Your task to perform on an android device: Open Google Chrome and click the shortcut for Amazon.com Image 0: 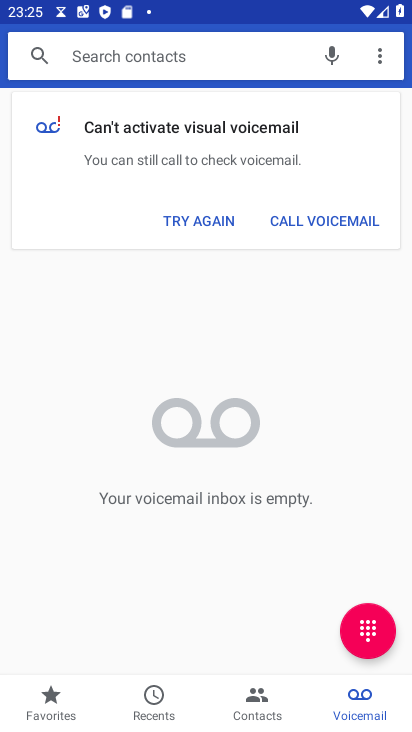
Step 0: press back button
Your task to perform on an android device: Open Google Chrome and click the shortcut for Amazon.com Image 1: 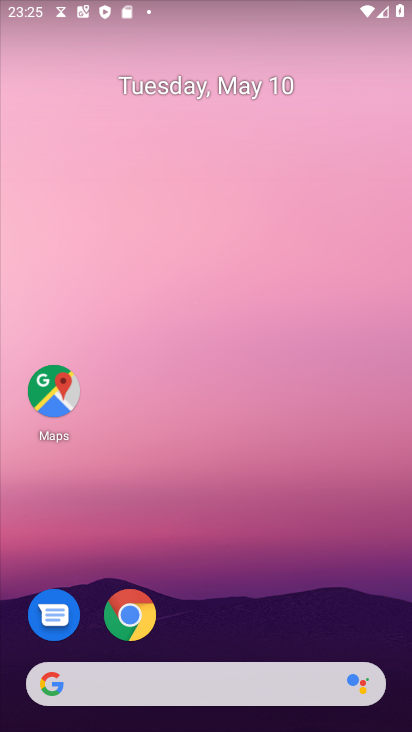
Step 1: click (133, 615)
Your task to perform on an android device: Open Google Chrome and click the shortcut for Amazon.com Image 2: 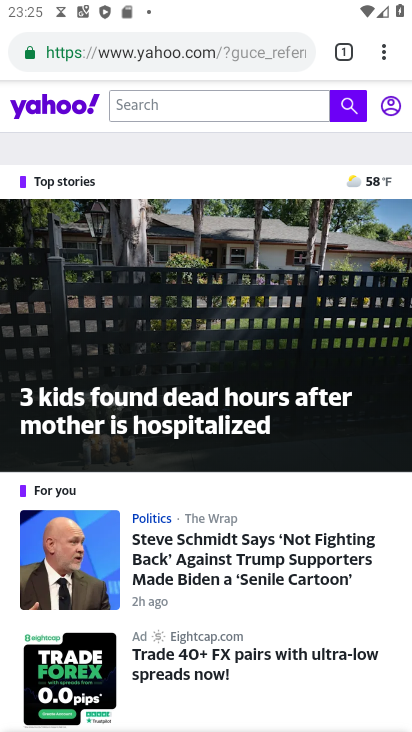
Step 2: click (265, 51)
Your task to perform on an android device: Open Google Chrome and click the shortcut for Amazon.com Image 3: 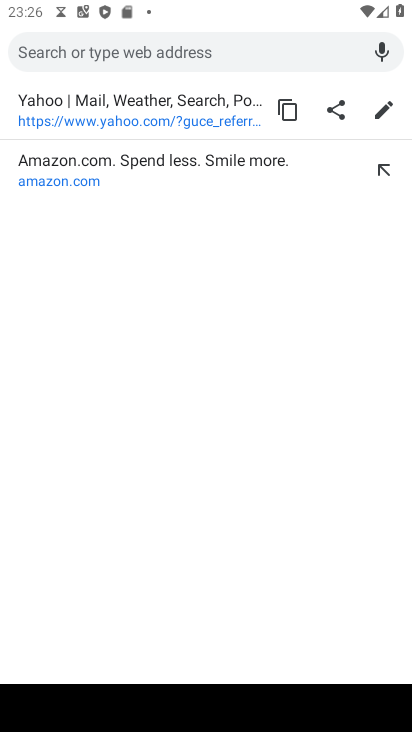
Step 3: type "Amazon.com"
Your task to perform on an android device: Open Google Chrome and click the shortcut for Amazon.com Image 4: 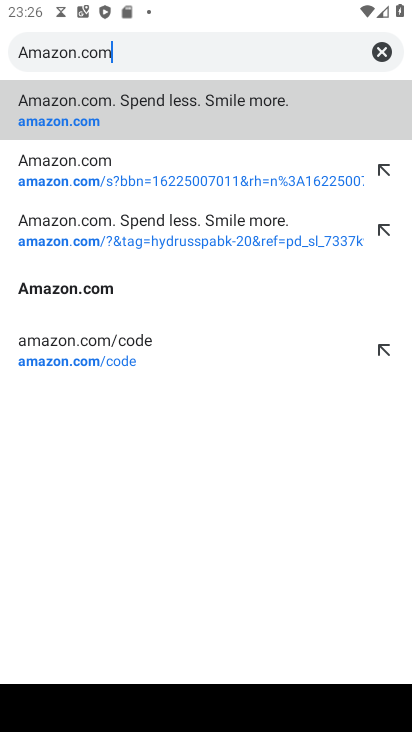
Step 4: click (186, 114)
Your task to perform on an android device: Open Google Chrome and click the shortcut for Amazon.com Image 5: 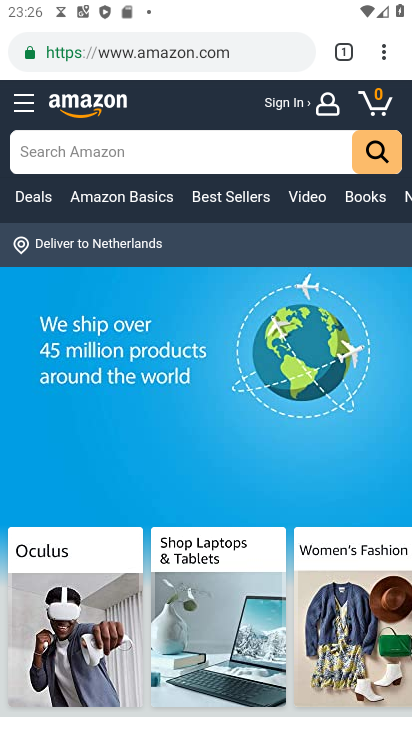
Step 5: click (385, 50)
Your task to perform on an android device: Open Google Chrome and click the shortcut for Amazon.com Image 6: 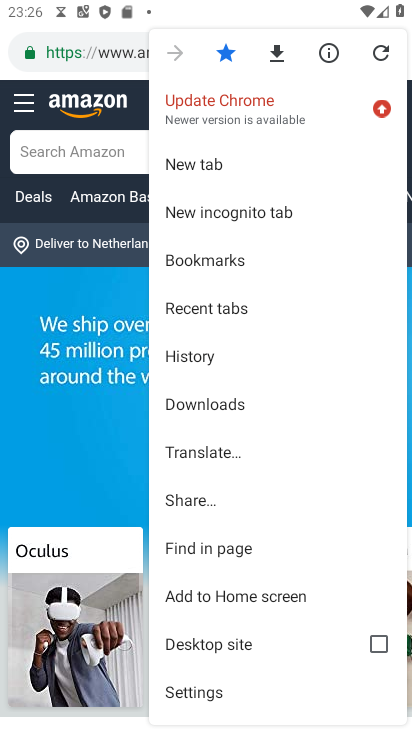
Step 6: click (293, 599)
Your task to perform on an android device: Open Google Chrome and click the shortcut for Amazon.com Image 7: 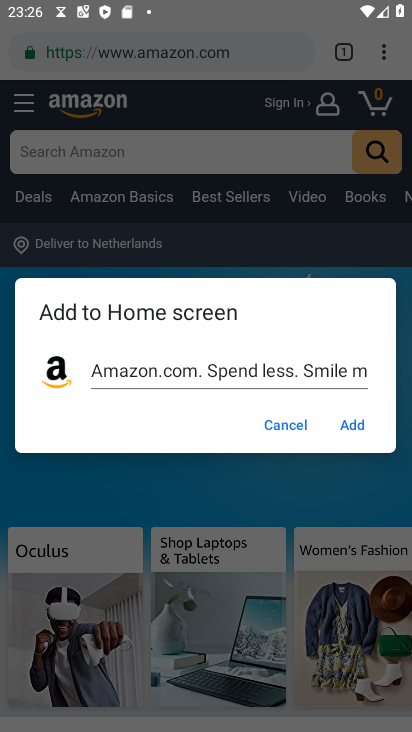
Step 7: click (347, 426)
Your task to perform on an android device: Open Google Chrome and click the shortcut for Amazon.com Image 8: 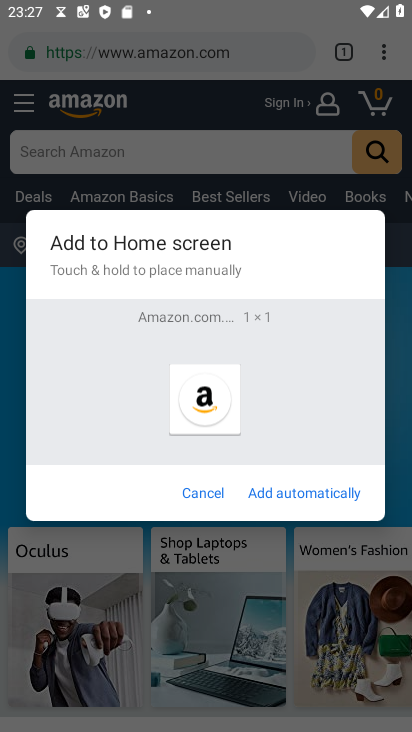
Step 8: click (271, 494)
Your task to perform on an android device: Open Google Chrome and click the shortcut for Amazon.com Image 9: 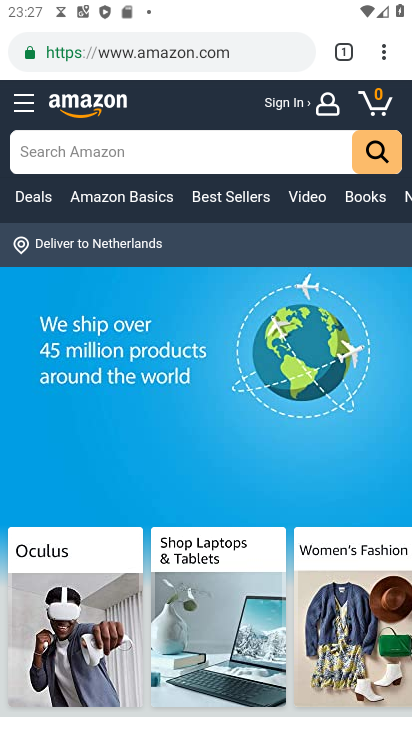
Step 9: task complete